Your task to perform on an android device: Open Google Chrome Image 0: 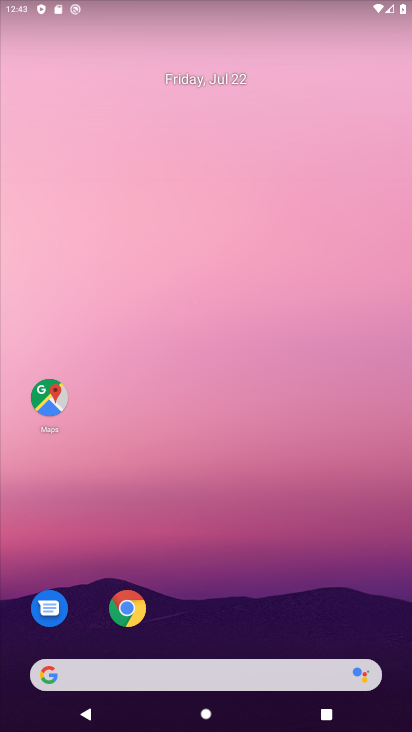
Step 0: click (146, 613)
Your task to perform on an android device: Open Google Chrome Image 1: 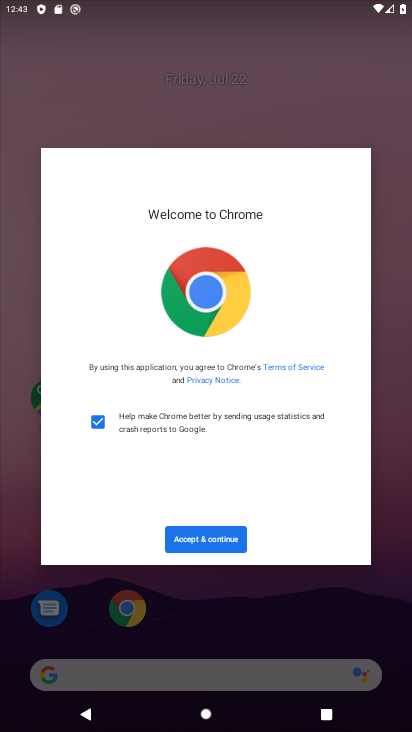
Step 1: click (220, 543)
Your task to perform on an android device: Open Google Chrome Image 2: 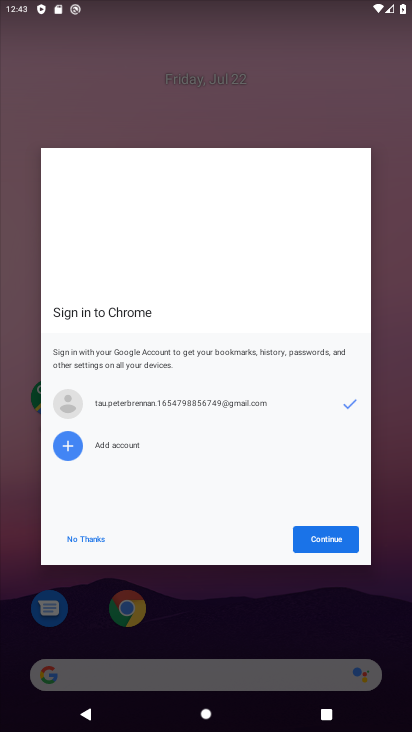
Step 2: click (343, 541)
Your task to perform on an android device: Open Google Chrome Image 3: 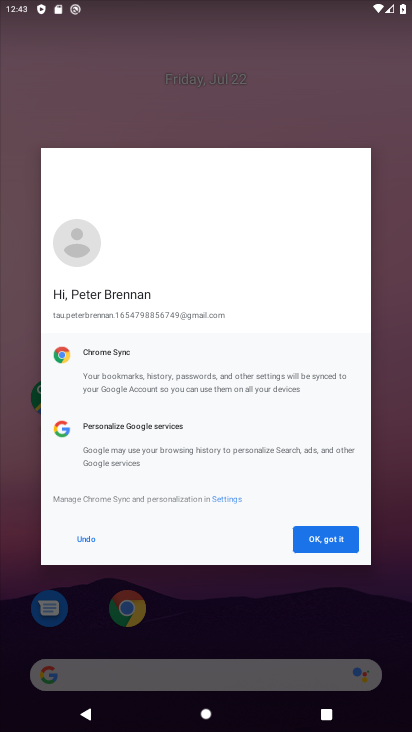
Step 3: click (343, 541)
Your task to perform on an android device: Open Google Chrome Image 4: 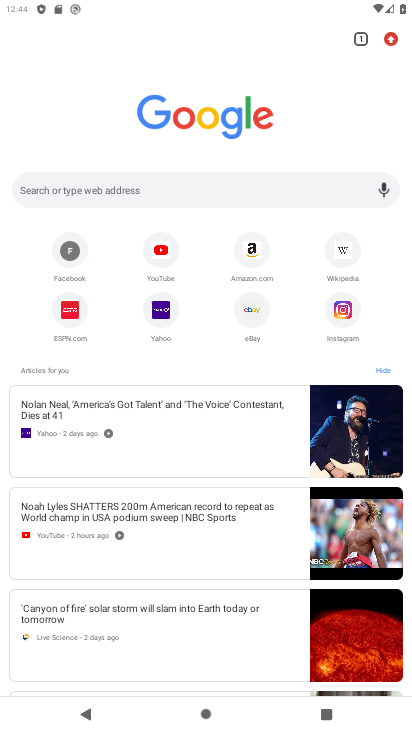
Step 4: task complete